Your task to perform on an android device: Go to notification settings Image 0: 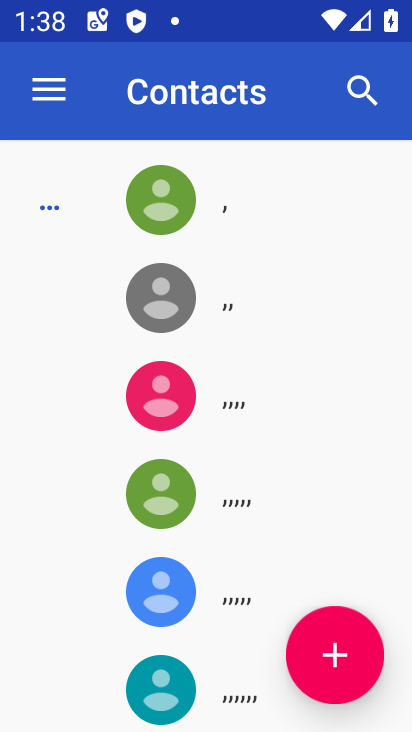
Step 0: press home button
Your task to perform on an android device: Go to notification settings Image 1: 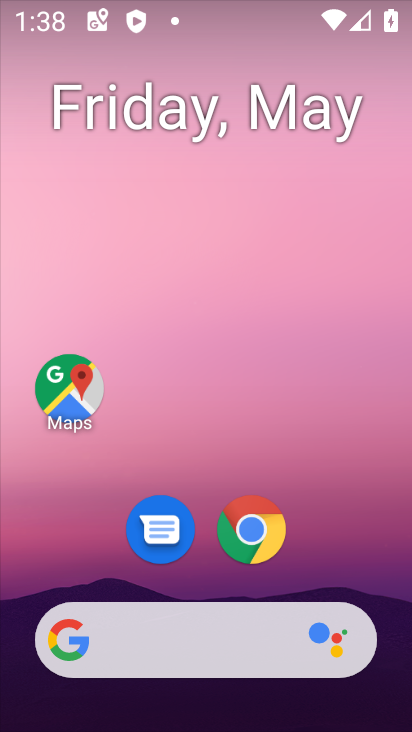
Step 1: drag from (300, 533) to (318, 11)
Your task to perform on an android device: Go to notification settings Image 2: 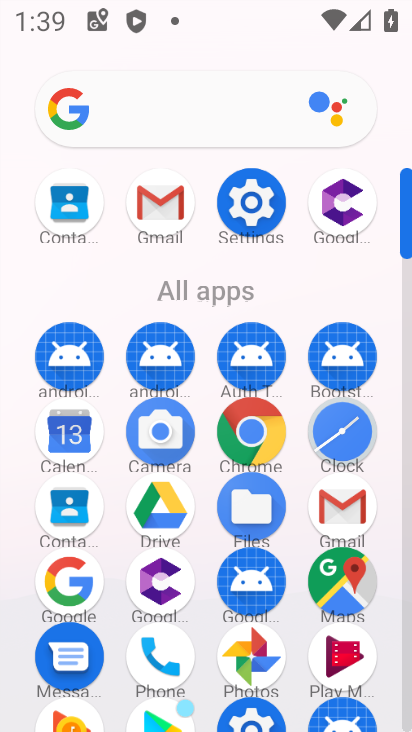
Step 2: click (256, 226)
Your task to perform on an android device: Go to notification settings Image 3: 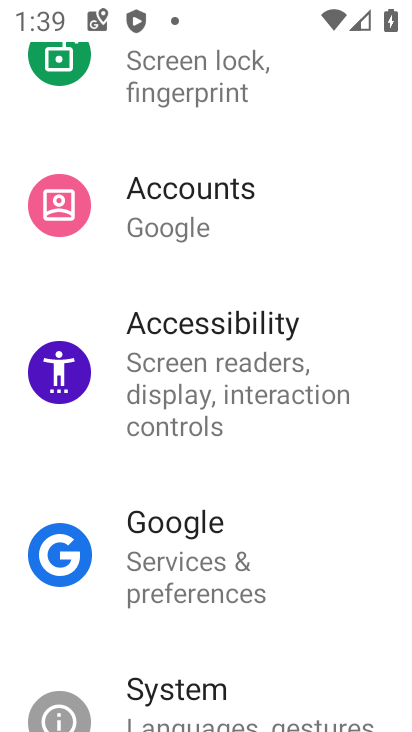
Step 3: drag from (223, 279) to (220, 709)
Your task to perform on an android device: Go to notification settings Image 4: 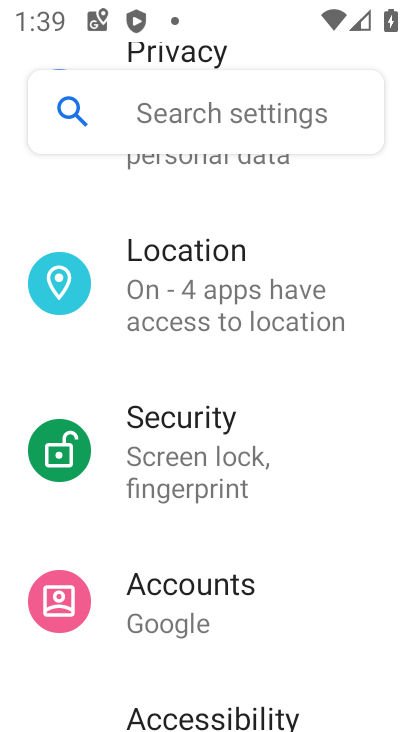
Step 4: drag from (253, 318) to (245, 637)
Your task to perform on an android device: Go to notification settings Image 5: 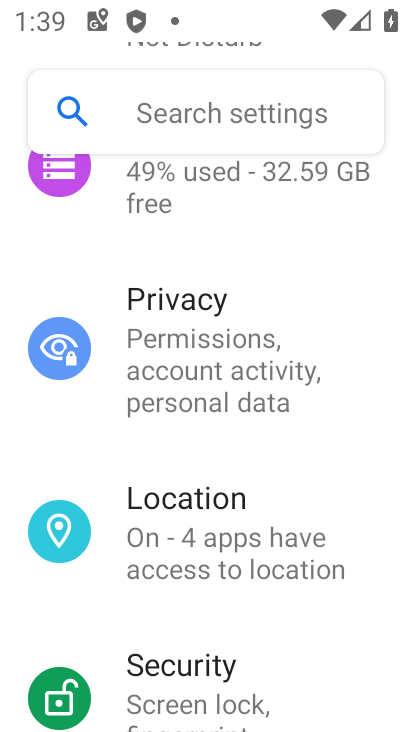
Step 5: drag from (216, 254) to (216, 610)
Your task to perform on an android device: Go to notification settings Image 6: 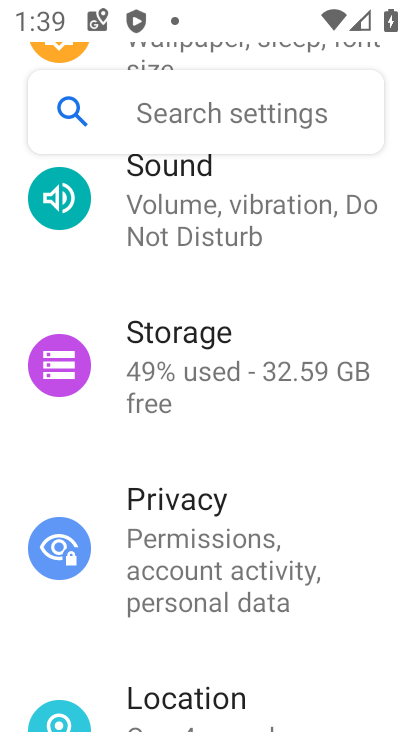
Step 6: drag from (240, 257) to (251, 604)
Your task to perform on an android device: Go to notification settings Image 7: 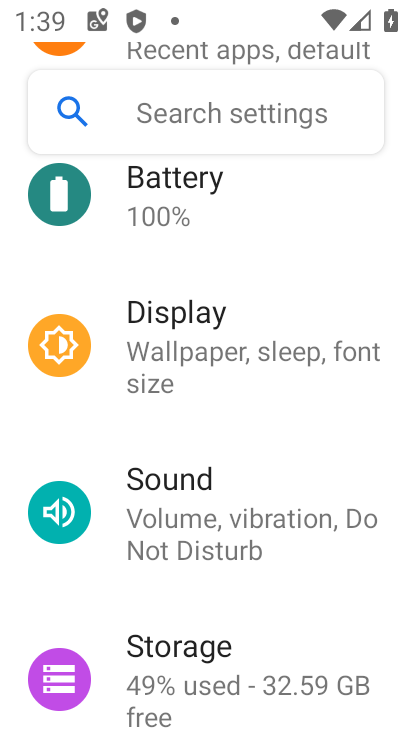
Step 7: drag from (240, 207) to (216, 637)
Your task to perform on an android device: Go to notification settings Image 8: 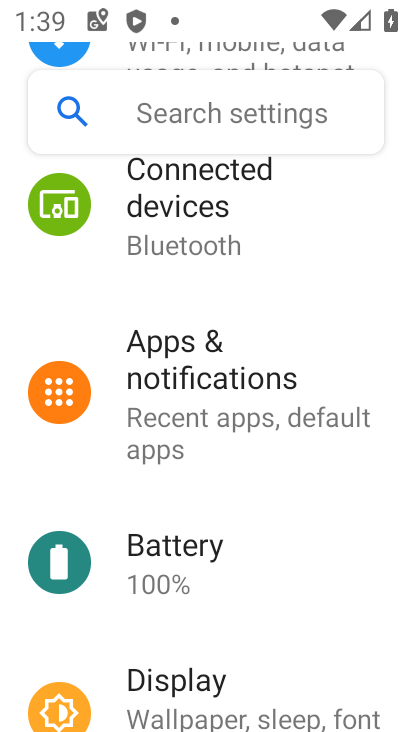
Step 8: click (212, 388)
Your task to perform on an android device: Go to notification settings Image 9: 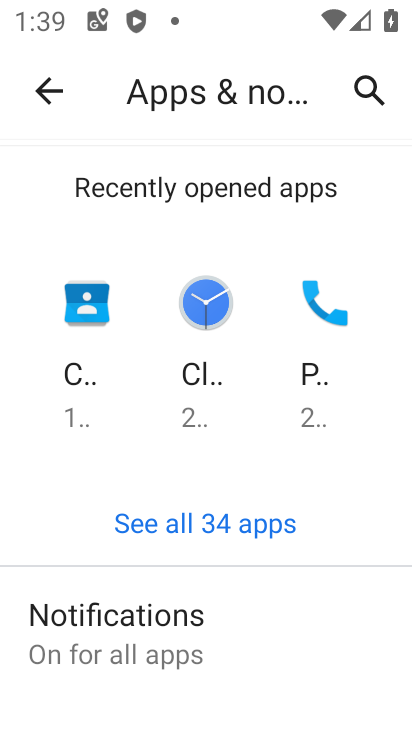
Step 9: task complete